Your task to perform on an android device: turn off location Image 0: 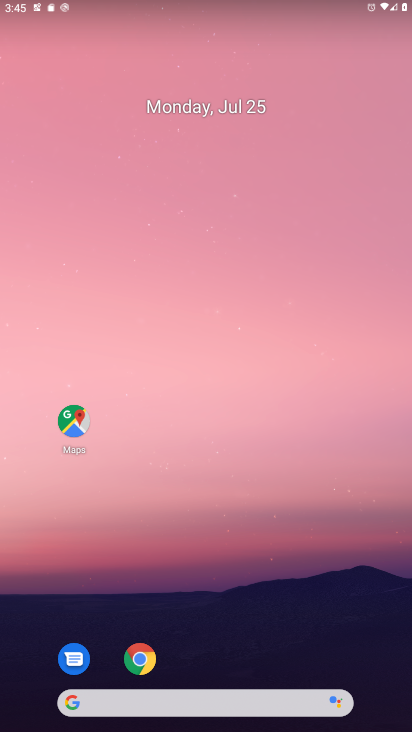
Step 0: drag from (228, 655) to (197, 209)
Your task to perform on an android device: turn off location Image 1: 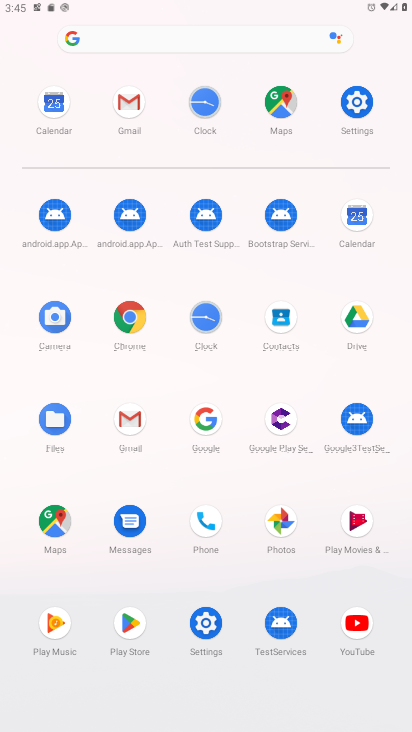
Step 1: click (351, 119)
Your task to perform on an android device: turn off location Image 2: 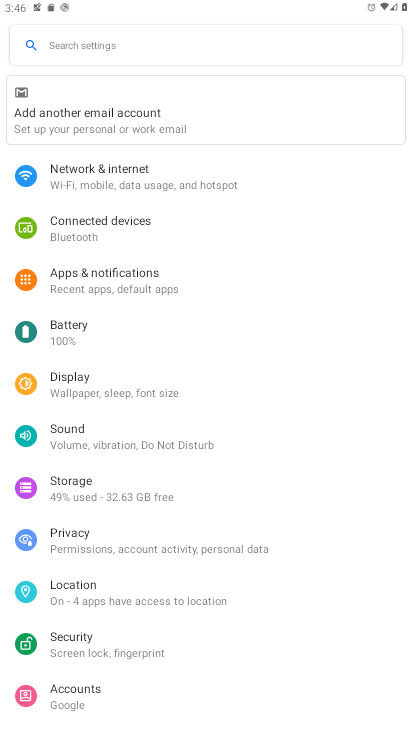
Step 2: click (65, 604)
Your task to perform on an android device: turn off location Image 3: 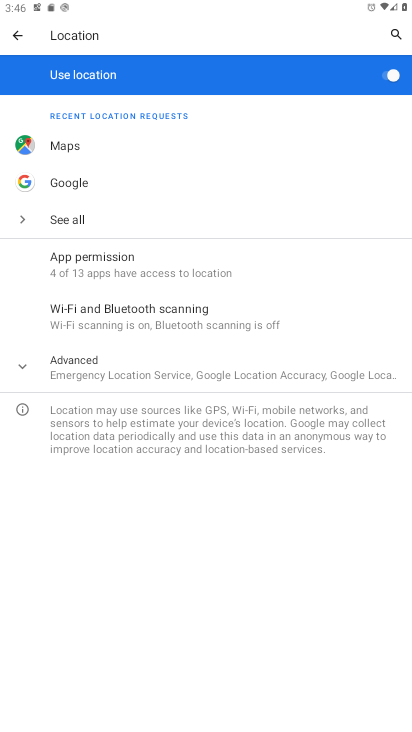
Step 3: click (387, 79)
Your task to perform on an android device: turn off location Image 4: 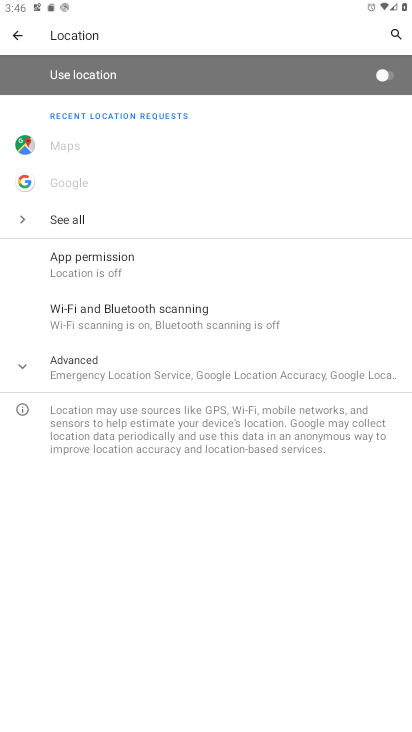
Step 4: task complete